Your task to perform on an android device: Open Chrome and go to settings Image 0: 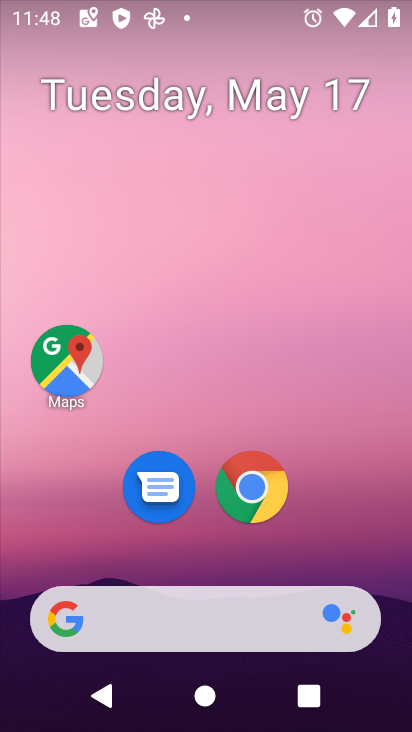
Step 0: press home button
Your task to perform on an android device: Open Chrome and go to settings Image 1: 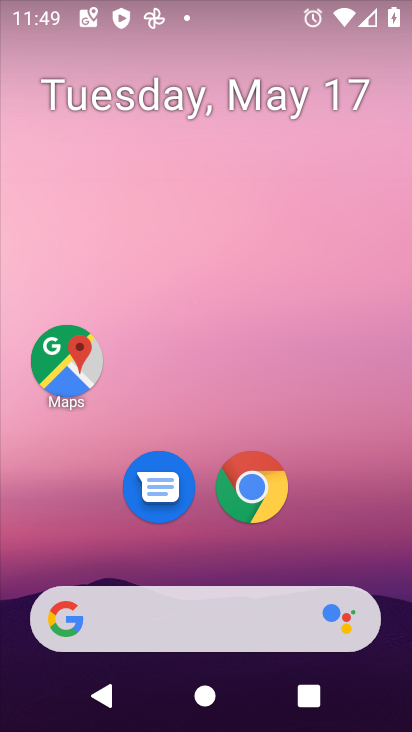
Step 1: click (248, 475)
Your task to perform on an android device: Open Chrome and go to settings Image 2: 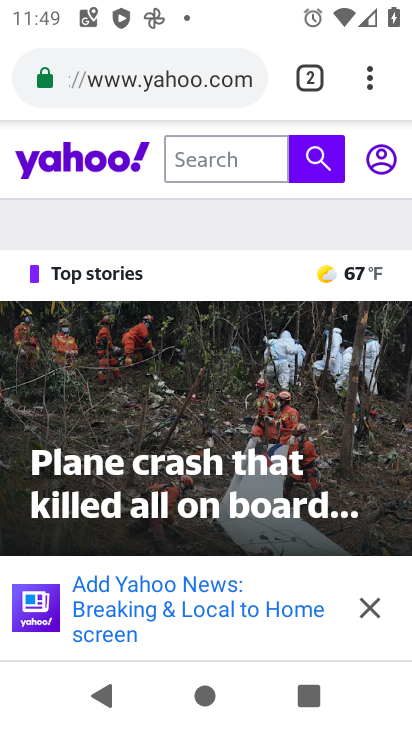
Step 2: task complete